Your task to perform on an android device: What are the best selling refrigerators at Home Depot? Image 0: 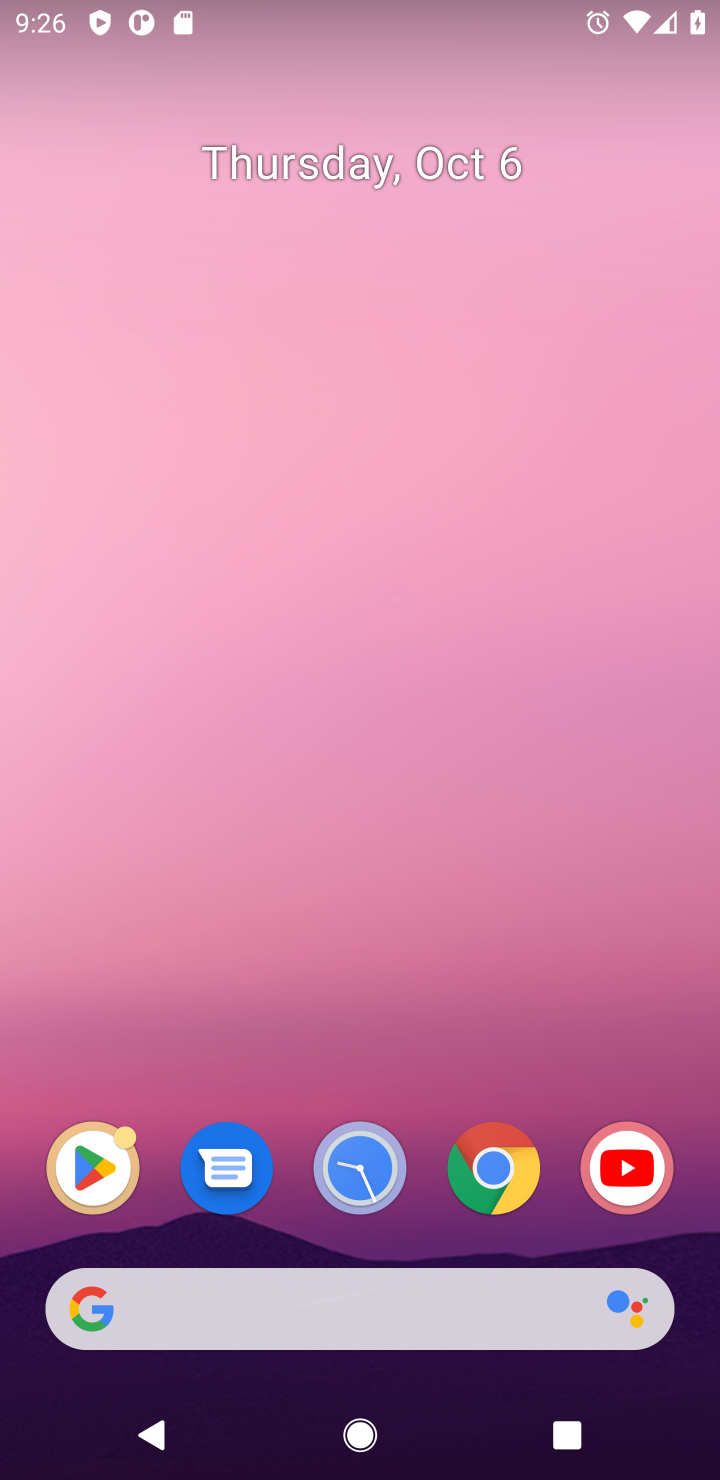
Step 0: click (377, 1306)
Your task to perform on an android device: What are the best selling refrigerators at Home Depot? Image 1: 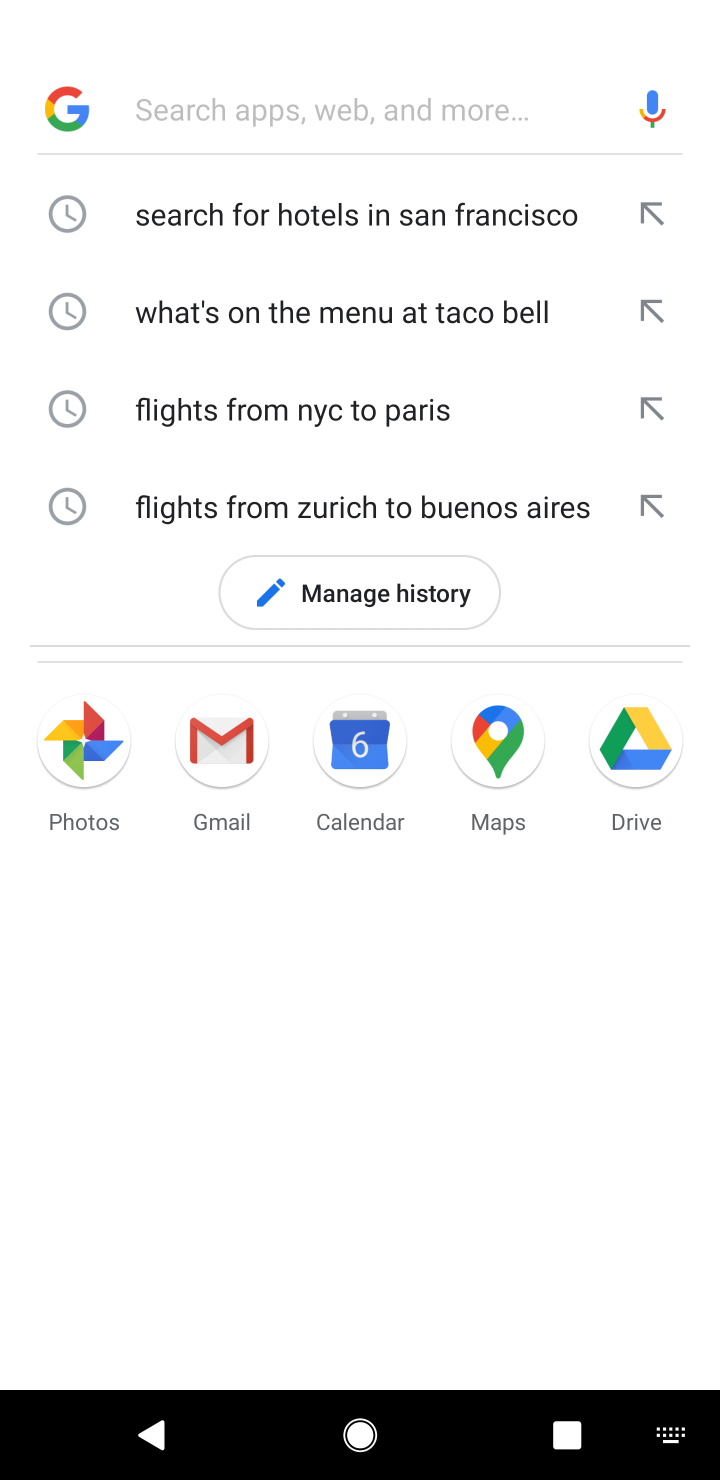
Step 1: type "What are the best selling refrigerators at Home Depot"
Your task to perform on an android device: What are the best selling refrigerators at Home Depot? Image 2: 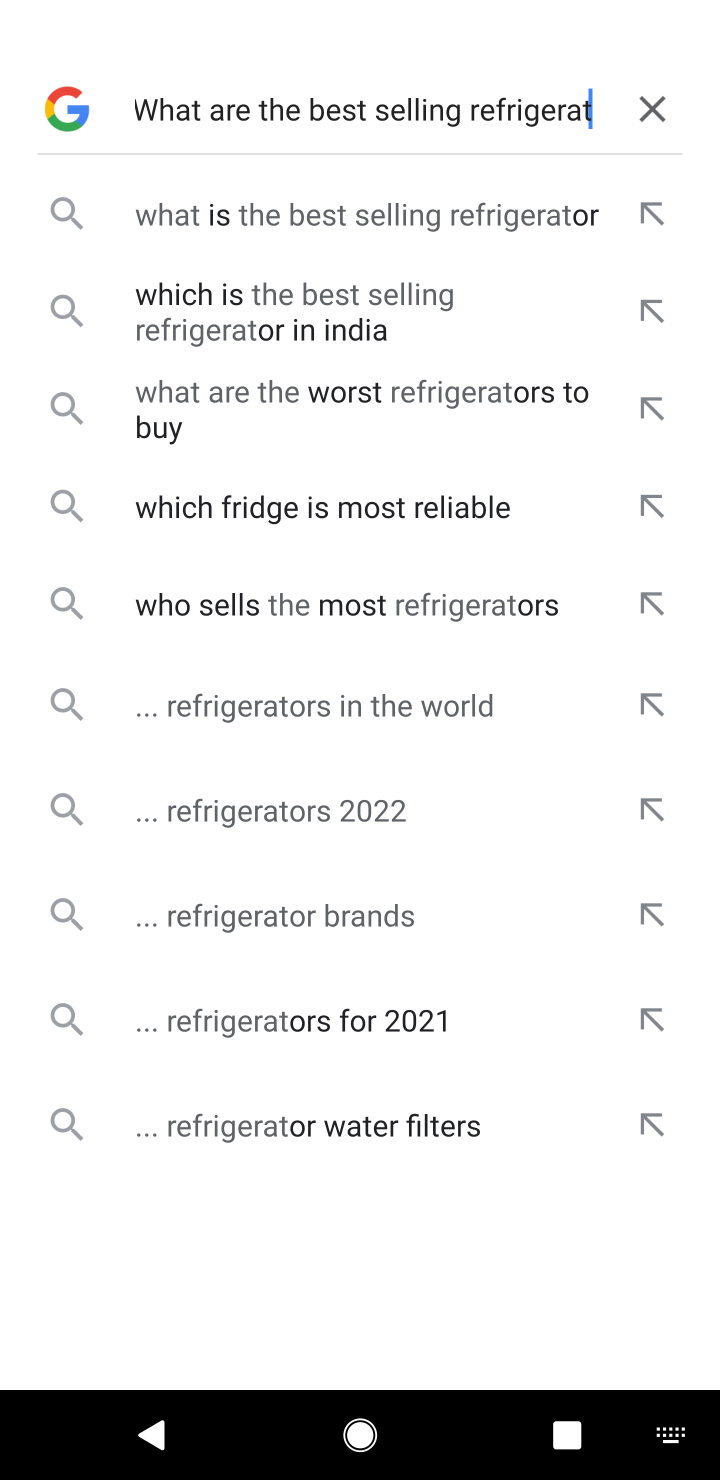
Step 2: type " at home depot"
Your task to perform on an android device: What are the best selling refrigerators at Home Depot? Image 3: 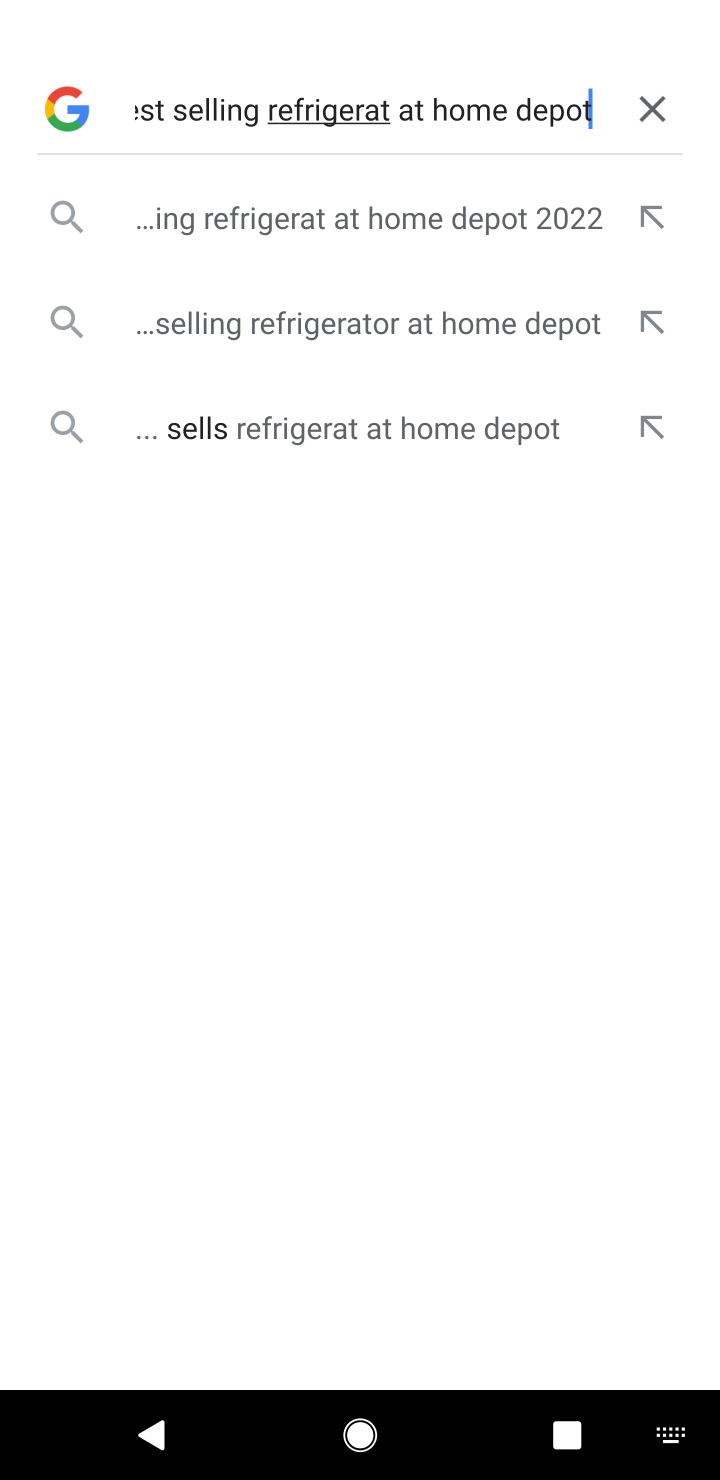
Step 3: click (356, 313)
Your task to perform on an android device: What are the best selling refrigerators at Home Depot? Image 4: 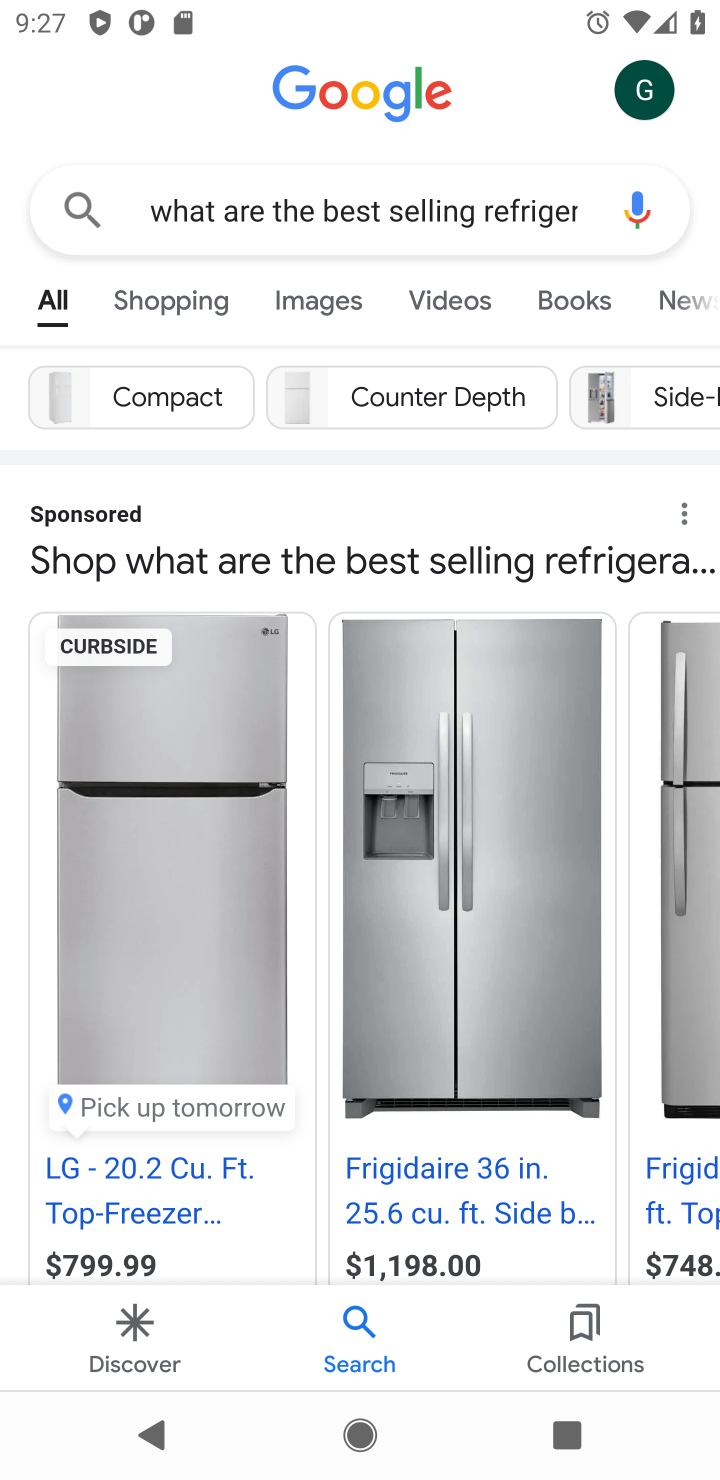
Step 4: task complete